Your task to perform on an android device: turn pop-ups on in chrome Image 0: 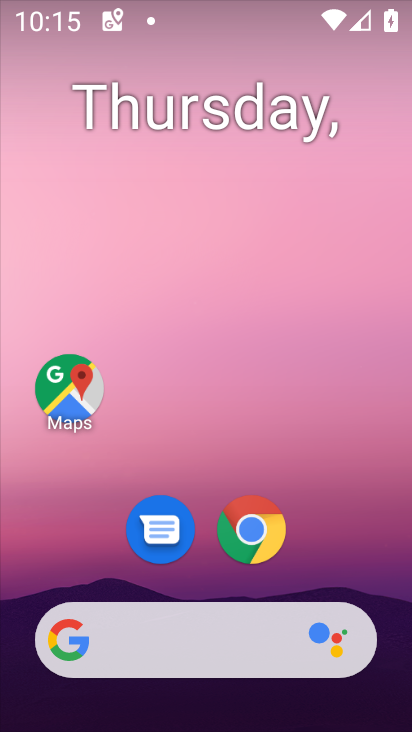
Step 0: click (254, 526)
Your task to perform on an android device: turn pop-ups on in chrome Image 1: 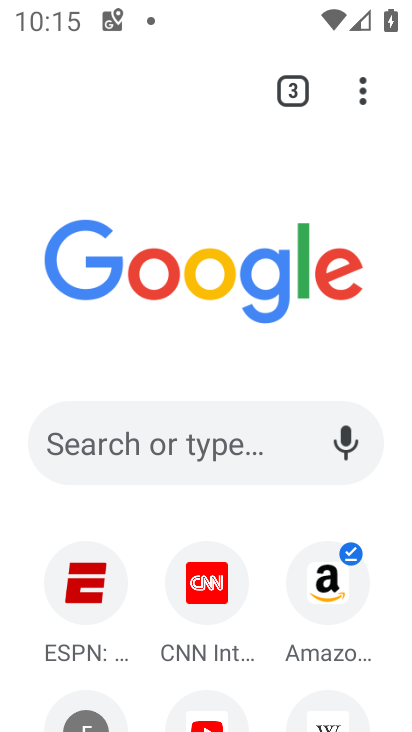
Step 1: click (365, 84)
Your task to perform on an android device: turn pop-ups on in chrome Image 2: 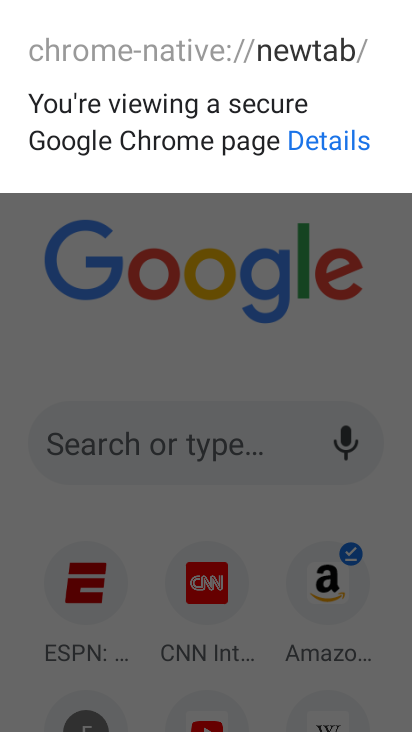
Step 2: click (240, 348)
Your task to perform on an android device: turn pop-ups on in chrome Image 3: 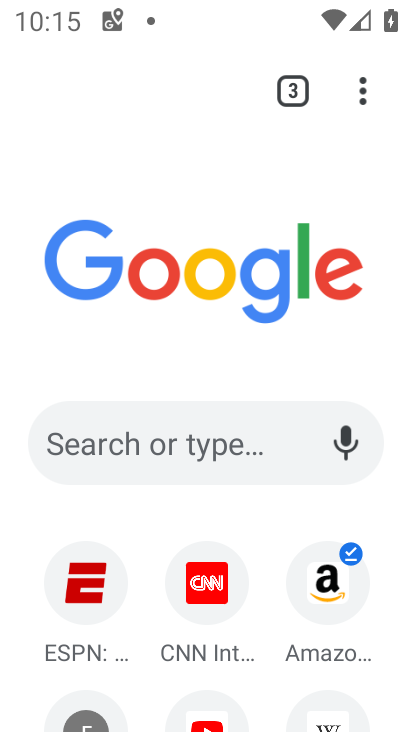
Step 3: click (361, 88)
Your task to perform on an android device: turn pop-ups on in chrome Image 4: 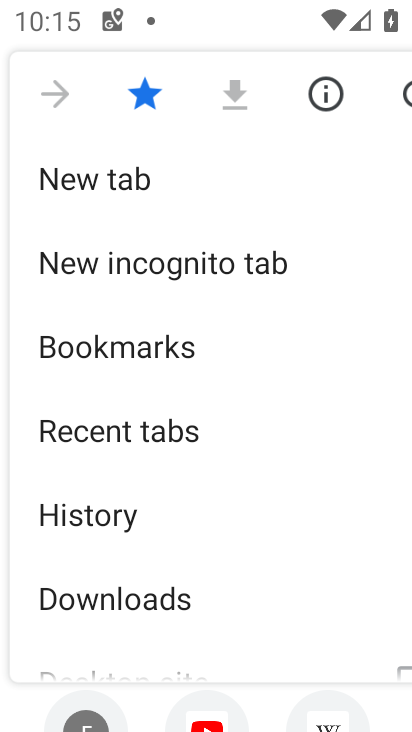
Step 4: drag from (305, 584) to (403, 13)
Your task to perform on an android device: turn pop-ups on in chrome Image 5: 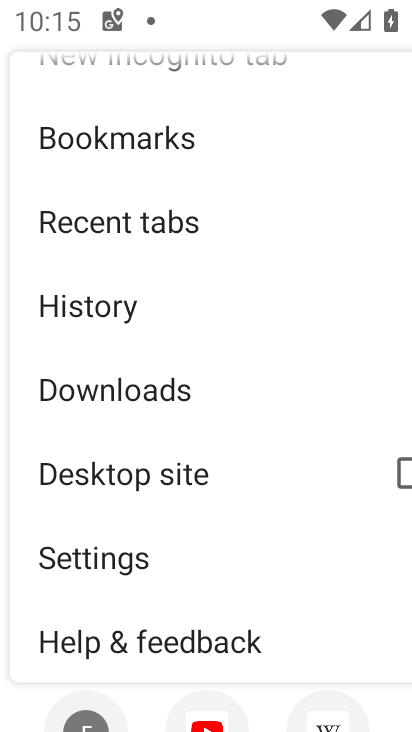
Step 5: click (177, 550)
Your task to perform on an android device: turn pop-ups on in chrome Image 6: 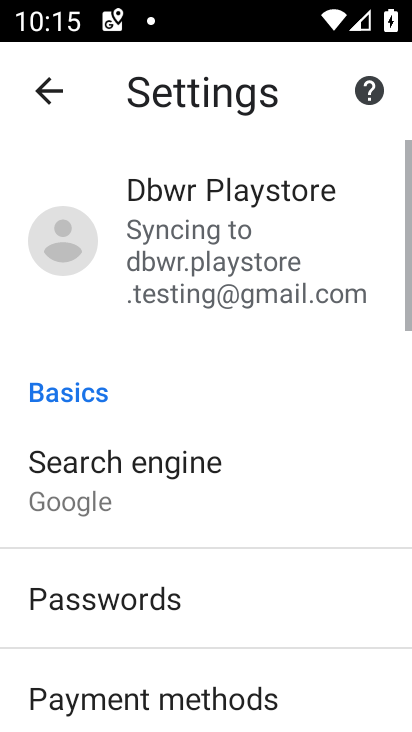
Step 6: drag from (257, 591) to (208, 11)
Your task to perform on an android device: turn pop-ups on in chrome Image 7: 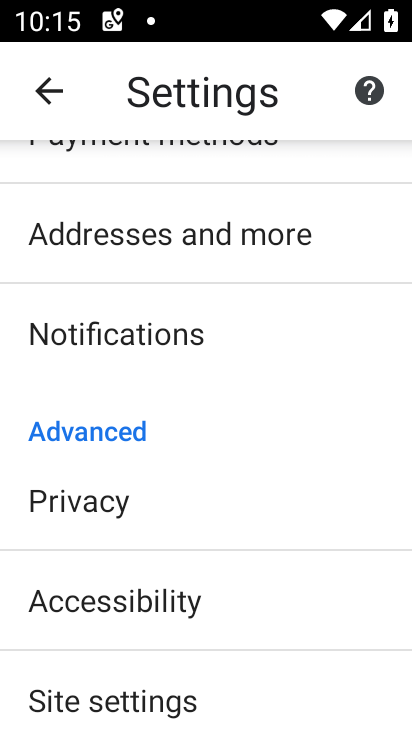
Step 7: click (209, 696)
Your task to perform on an android device: turn pop-ups on in chrome Image 8: 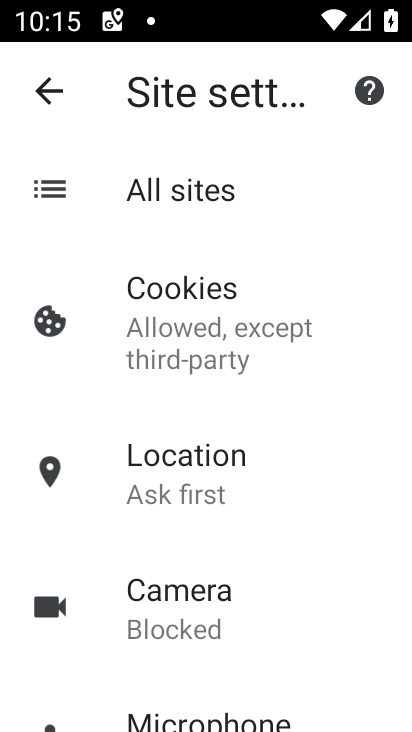
Step 8: drag from (328, 551) to (298, 125)
Your task to perform on an android device: turn pop-ups on in chrome Image 9: 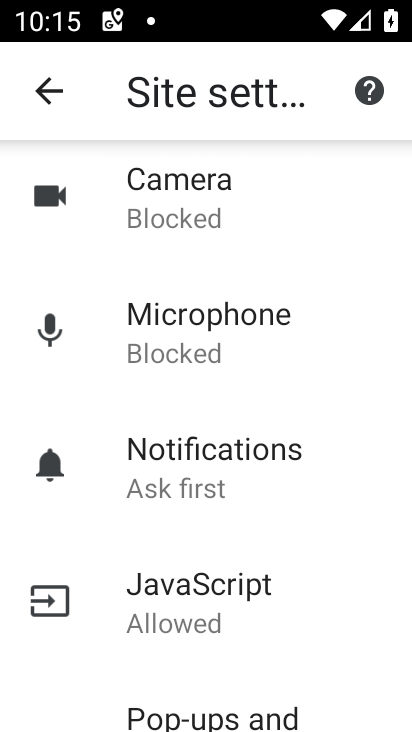
Step 9: drag from (353, 667) to (270, 77)
Your task to perform on an android device: turn pop-ups on in chrome Image 10: 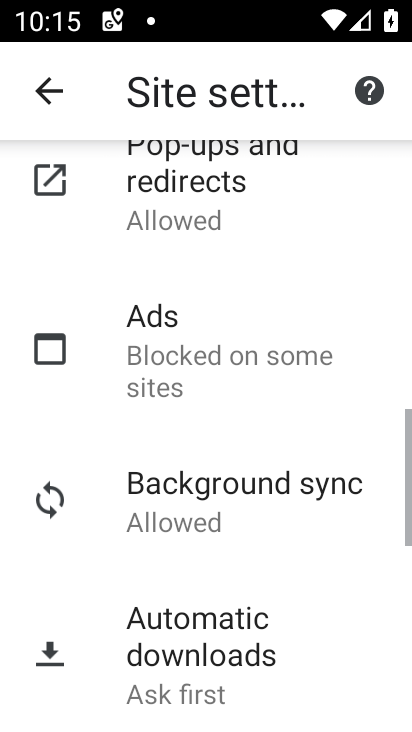
Step 10: drag from (242, 282) to (184, 587)
Your task to perform on an android device: turn pop-ups on in chrome Image 11: 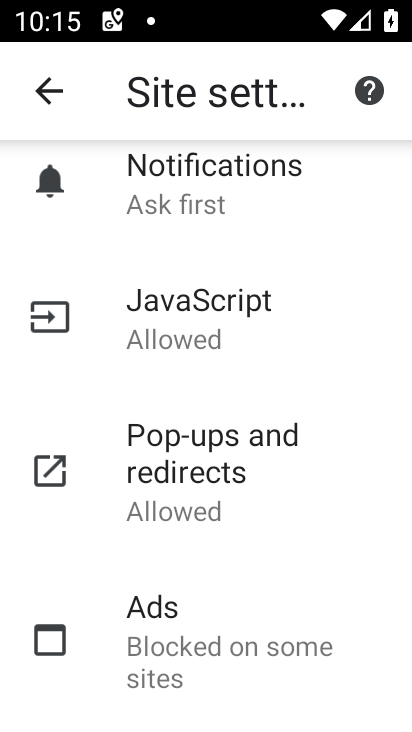
Step 11: click (221, 489)
Your task to perform on an android device: turn pop-ups on in chrome Image 12: 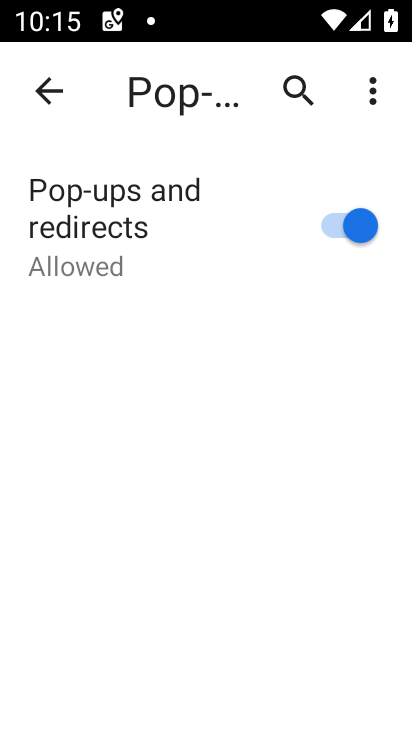
Step 12: task complete